Your task to perform on an android device: delete a single message in the gmail app Image 0: 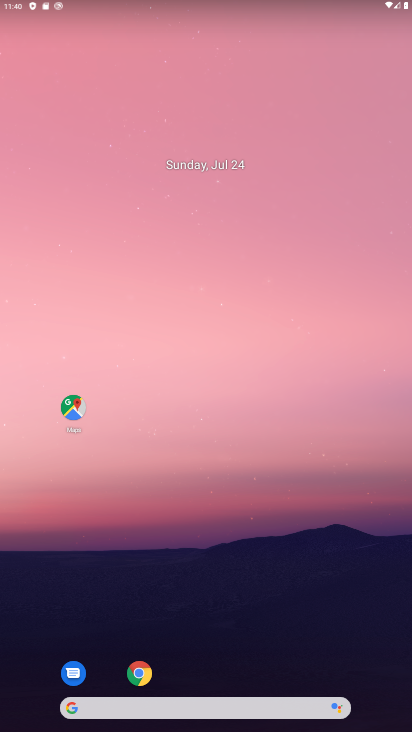
Step 0: drag from (189, 706) to (187, 233)
Your task to perform on an android device: delete a single message in the gmail app Image 1: 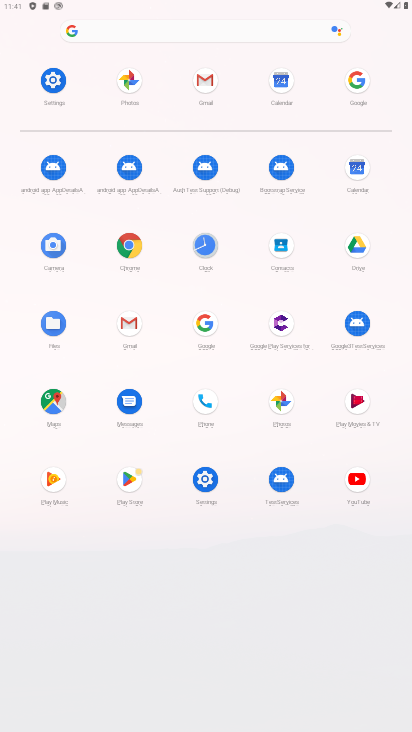
Step 1: click (128, 322)
Your task to perform on an android device: delete a single message in the gmail app Image 2: 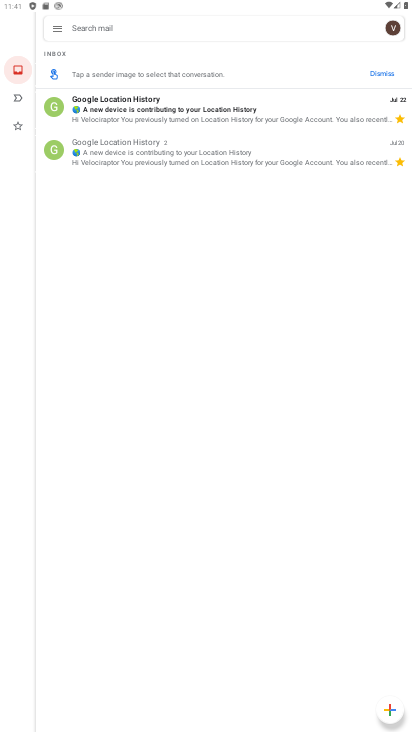
Step 2: click (56, 28)
Your task to perform on an android device: delete a single message in the gmail app Image 3: 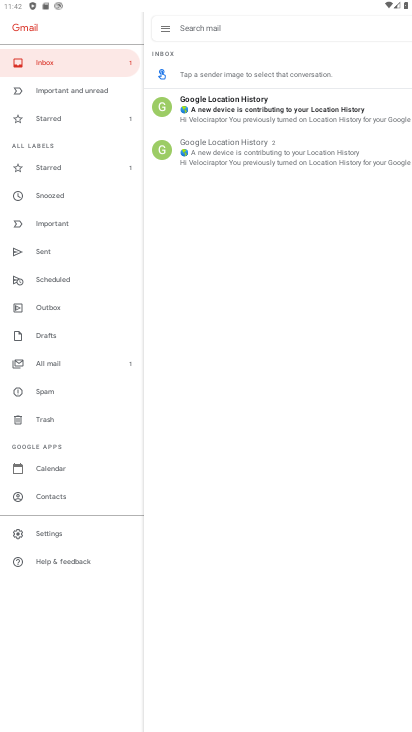
Step 3: click (218, 109)
Your task to perform on an android device: delete a single message in the gmail app Image 4: 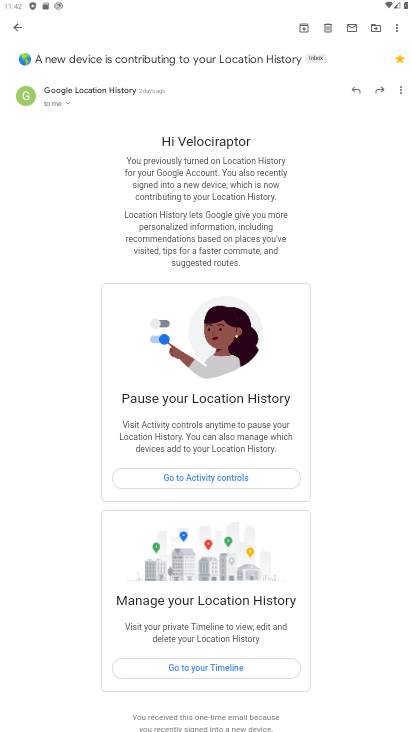
Step 4: click (335, 32)
Your task to perform on an android device: delete a single message in the gmail app Image 5: 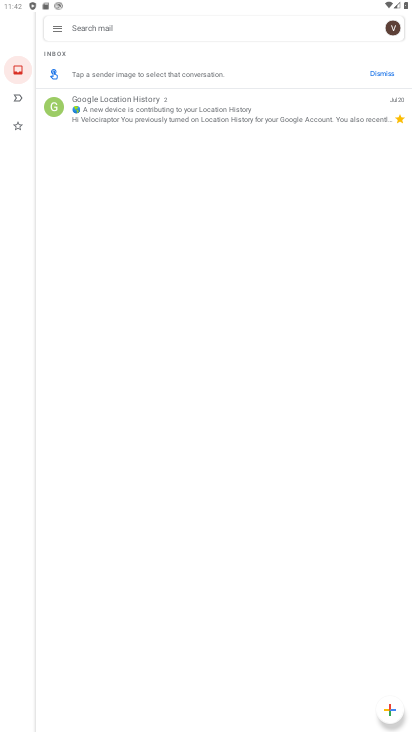
Step 5: task complete